Your task to perform on an android device: Go to wifi settings Image 0: 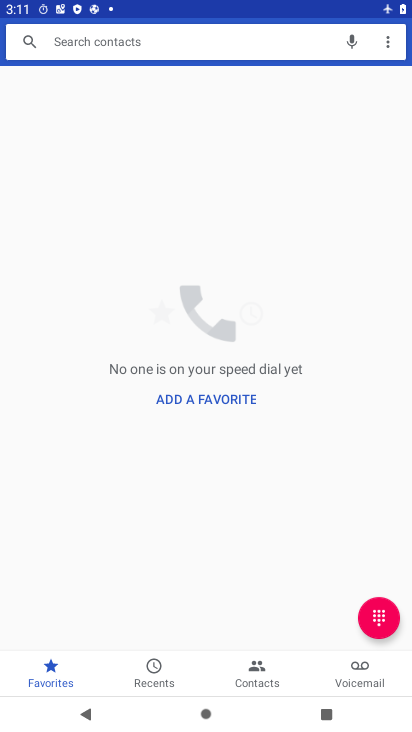
Step 0: press home button
Your task to perform on an android device: Go to wifi settings Image 1: 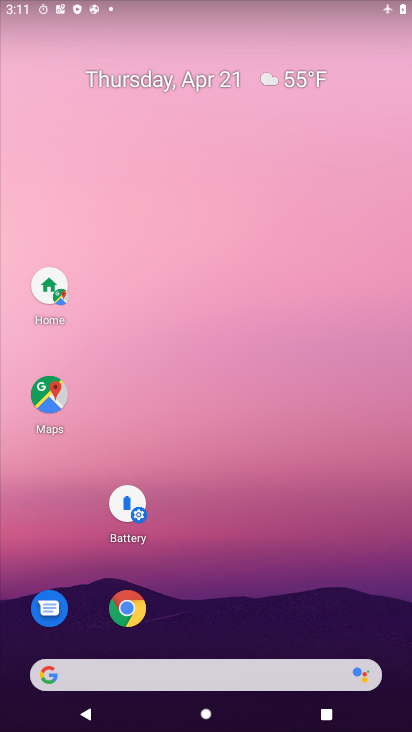
Step 1: drag from (237, 565) to (288, 57)
Your task to perform on an android device: Go to wifi settings Image 2: 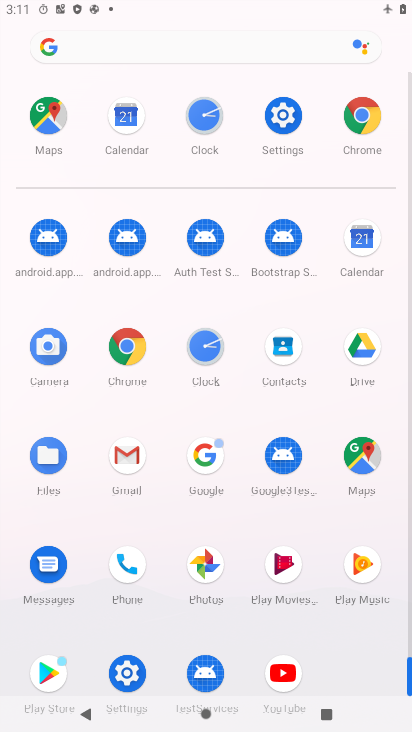
Step 2: click (278, 114)
Your task to perform on an android device: Go to wifi settings Image 3: 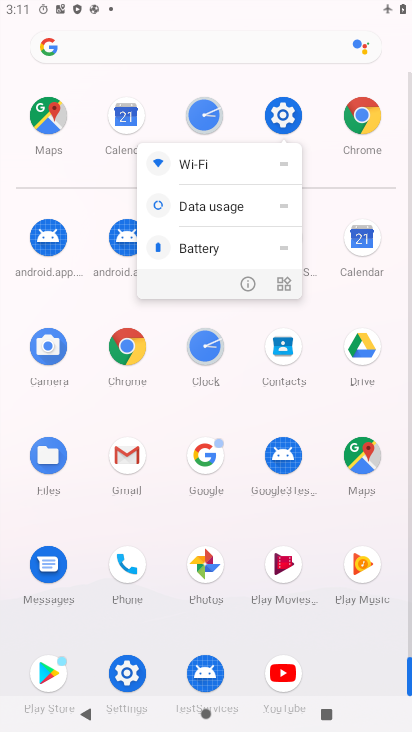
Step 3: click (278, 114)
Your task to perform on an android device: Go to wifi settings Image 4: 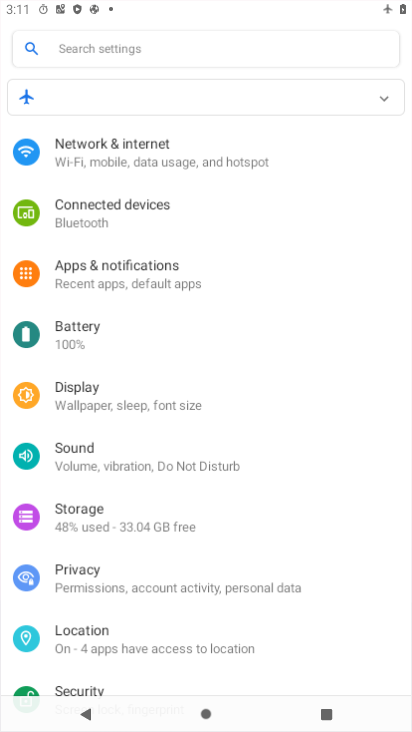
Step 4: click (277, 111)
Your task to perform on an android device: Go to wifi settings Image 5: 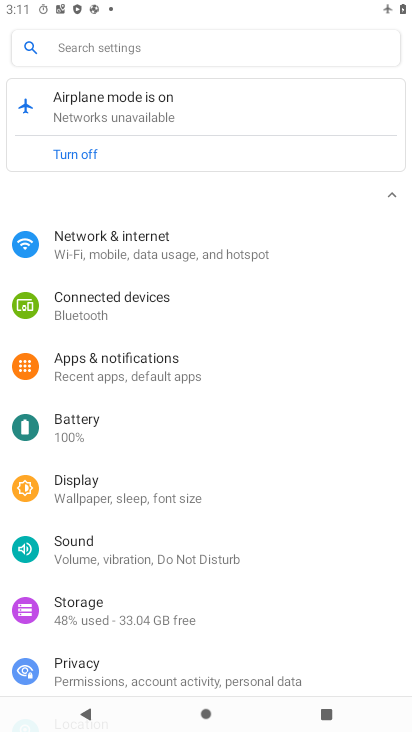
Step 5: click (84, 258)
Your task to perform on an android device: Go to wifi settings Image 6: 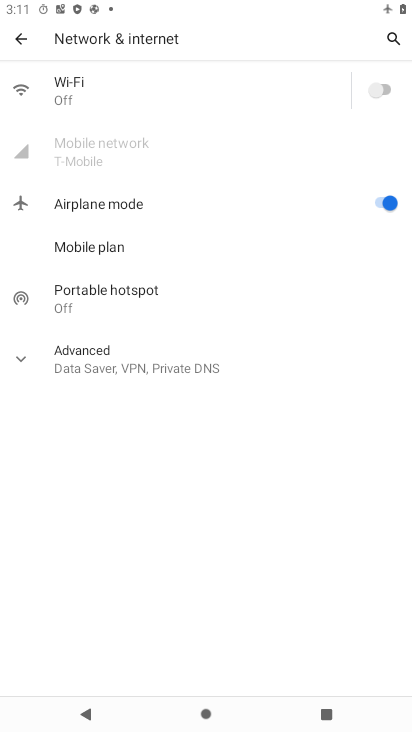
Step 6: click (153, 80)
Your task to perform on an android device: Go to wifi settings Image 7: 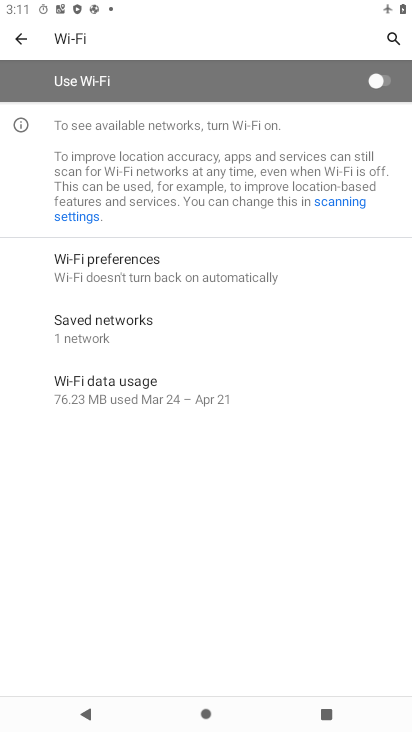
Step 7: task complete